Your task to perform on an android device: Go to calendar. Show me events next week Image 0: 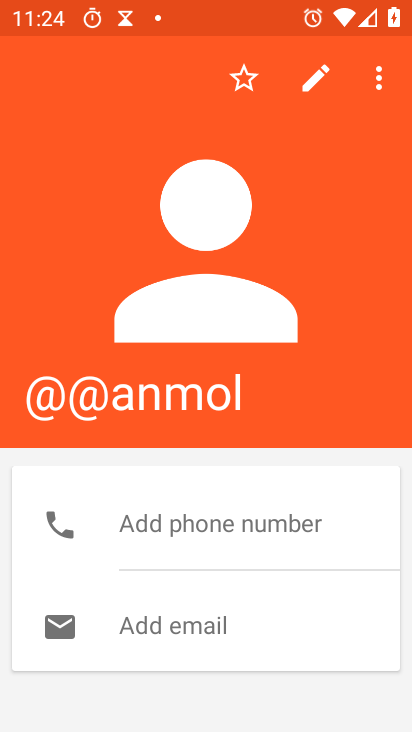
Step 0: press back button
Your task to perform on an android device: Go to calendar. Show me events next week Image 1: 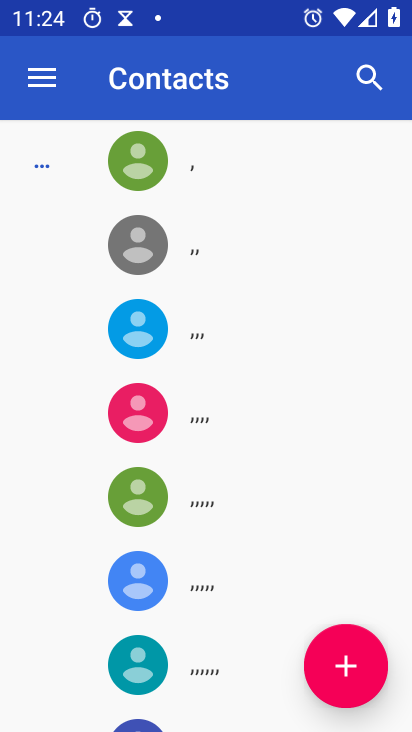
Step 1: press back button
Your task to perform on an android device: Go to calendar. Show me events next week Image 2: 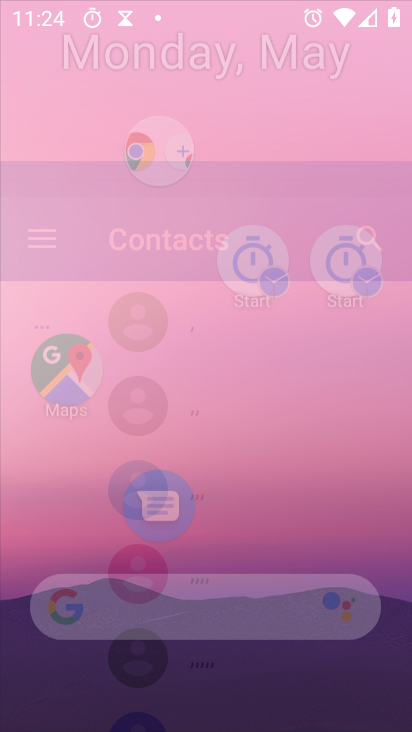
Step 2: press home button
Your task to perform on an android device: Go to calendar. Show me events next week Image 3: 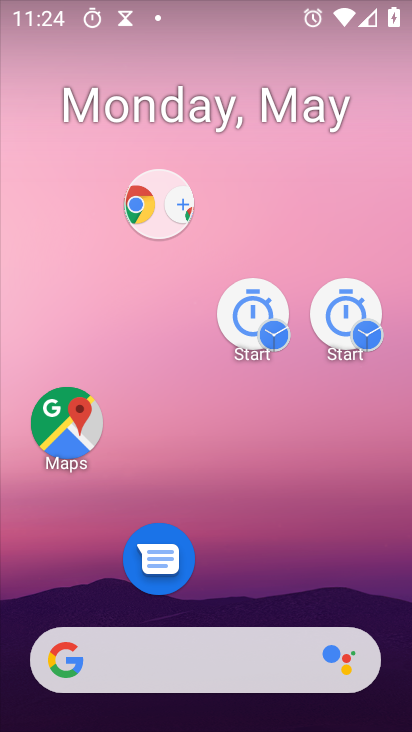
Step 3: drag from (226, 199) to (199, 112)
Your task to perform on an android device: Go to calendar. Show me events next week Image 4: 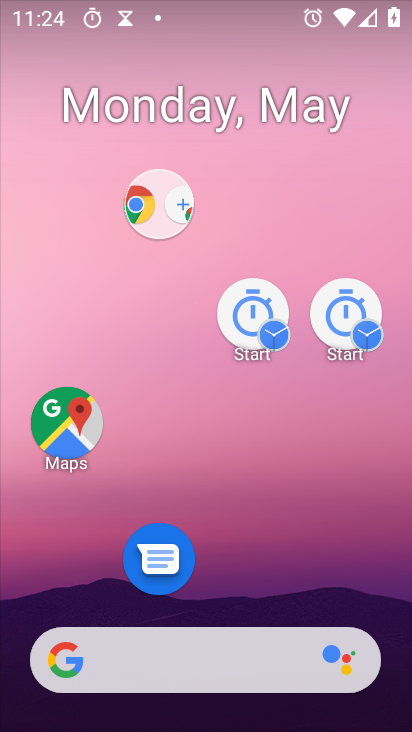
Step 4: drag from (262, 683) to (228, 69)
Your task to perform on an android device: Go to calendar. Show me events next week Image 5: 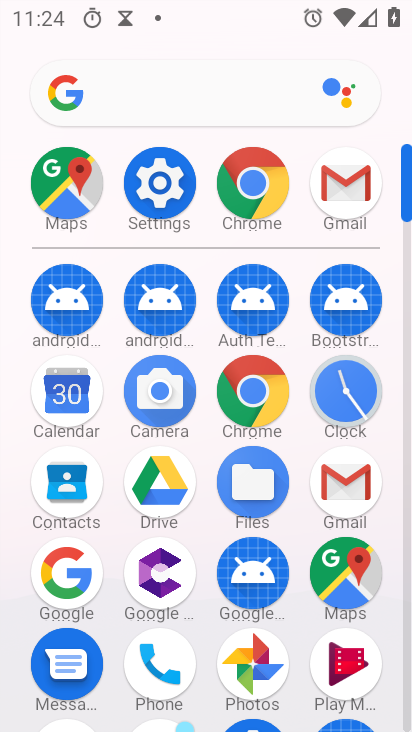
Step 5: drag from (251, 425) to (240, 88)
Your task to perform on an android device: Go to calendar. Show me events next week Image 6: 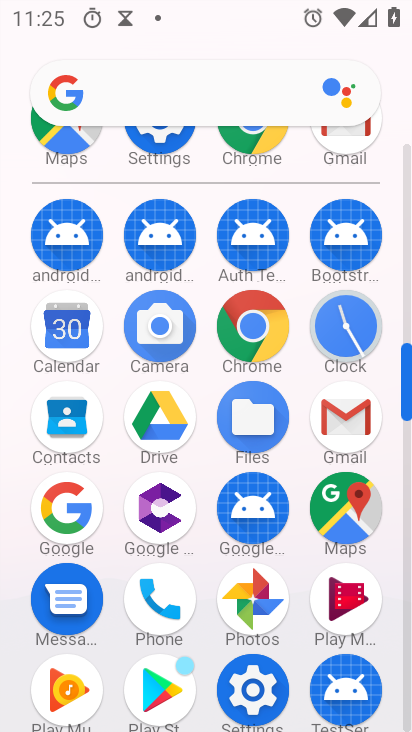
Step 6: click (74, 407)
Your task to perform on an android device: Go to calendar. Show me events next week Image 7: 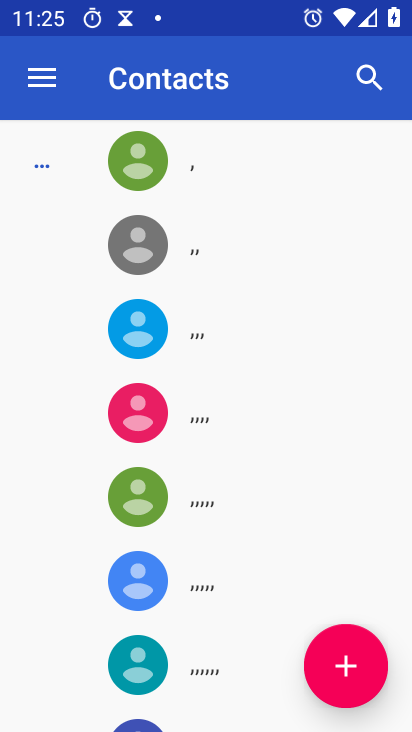
Step 7: press back button
Your task to perform on an android device: Go to calendar. Show me events next week Image 8: 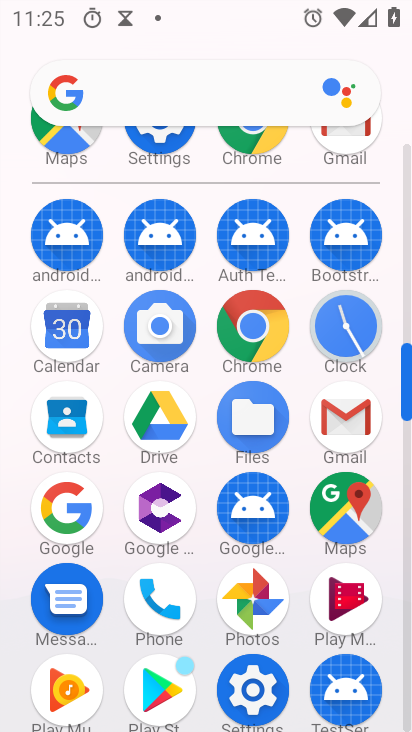
Step 8: click (66, 337)
Your task to perform on an android device: Go to calendar. Show me events next week Image 9: 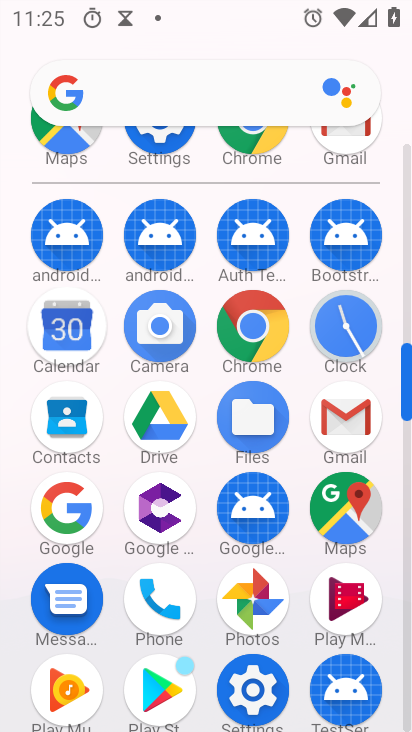
Step 9: click (71, 338)
Your task to perform on an android device: Go to calendar. Show me events next week Image 10: 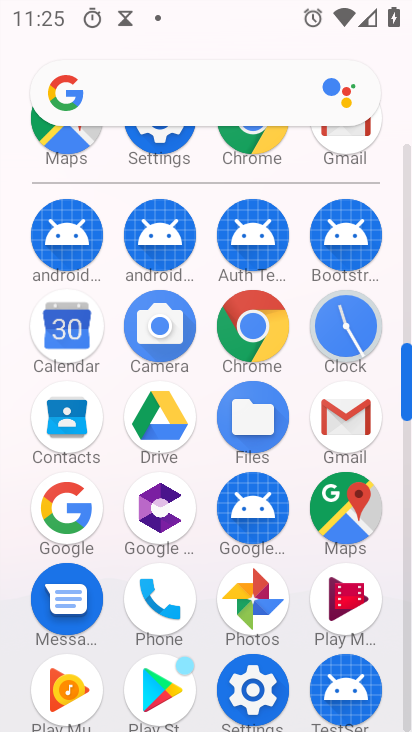
Step 10: click (70, 336)
Your task to perform on an android device: Go to calendar. Show me events next week Image 11: 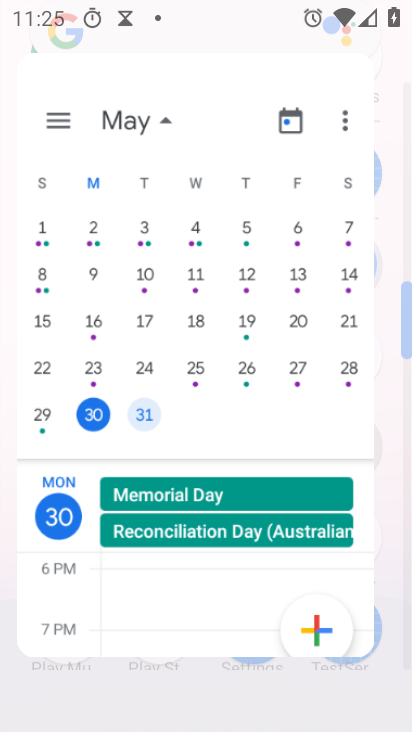
Step 11: click (70, 336)
Your task to perform on an android device: Go to calendar. Show me events next week Image 12: 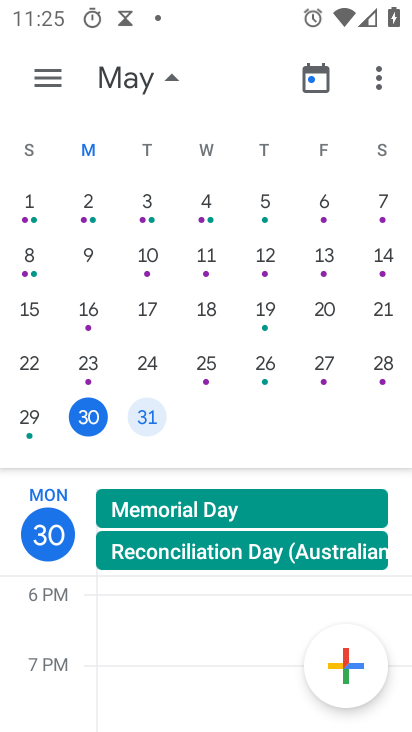
Step 12: drag from (293, 279) to (117, 288)
Your task to perform on an android device: Go to calendar. Show me events next week Image 13: 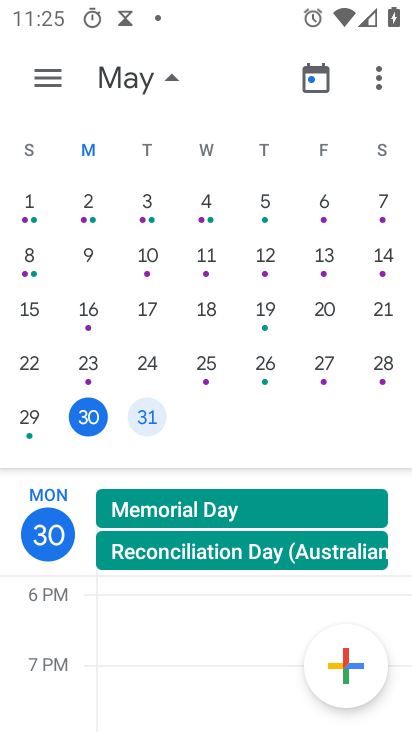
Step 13: drag from (265, 271) to (6, 386)
Your task to perform on an android device: Go to calendar. Show me events next week Image 14: 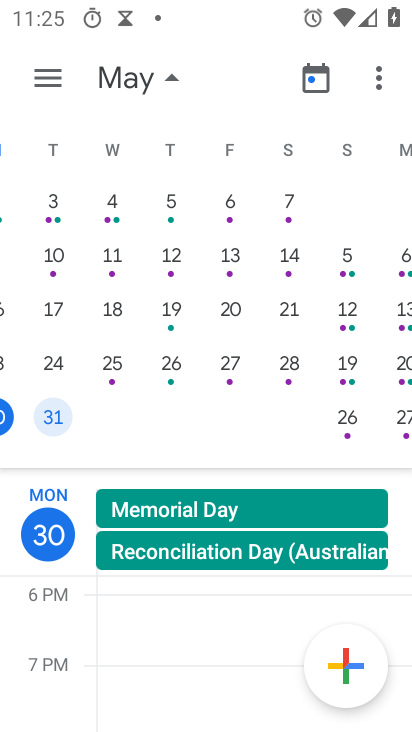
Step 14: drag from (247, 321) to (35, 400)
Your task to perform on an android device: Go to calendar. Show me events next week Image 15: 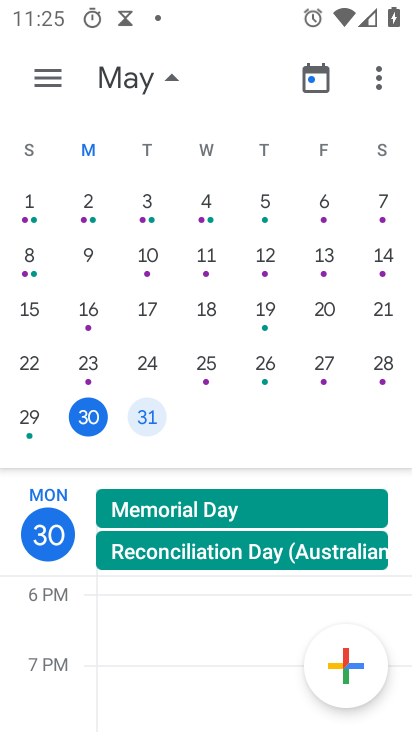
Step 15: click (0, 429)
Your task to perform on an android device: Go to calendar. Show me events next week Image 16: 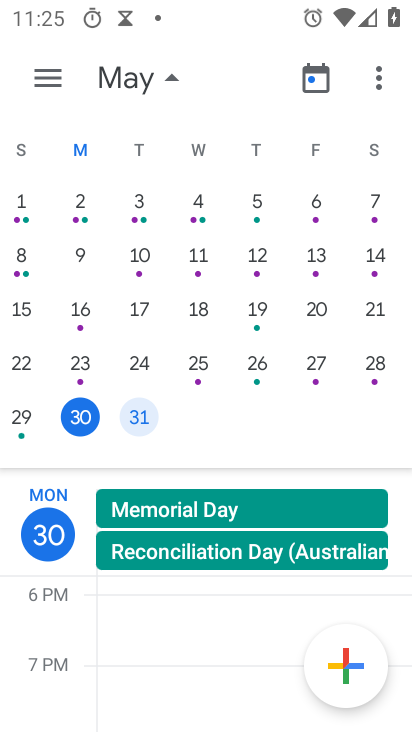
Step 16: drag from (177, 366) to (11, 317)
Your task to perform on an android device: Go to calendar. Show me events next week Image 17: 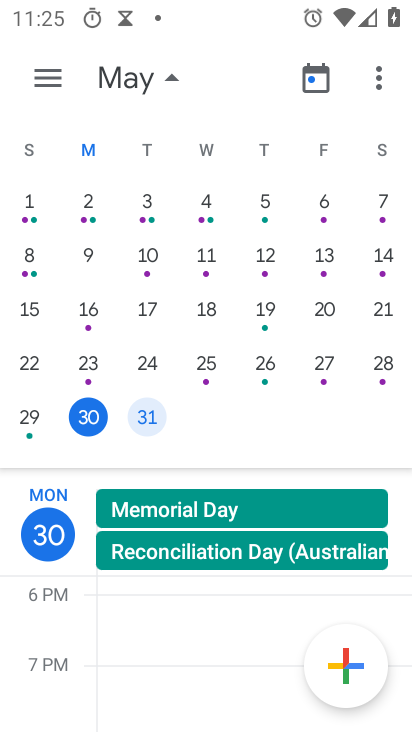
Step 17: drag from (275, 288) to (106, 355)
Your task to perform on an android device: Go to calendar. Show me events next week Image 18: 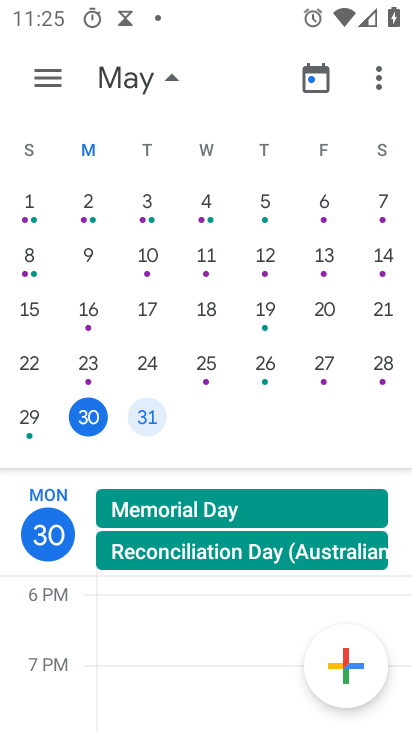
Step 18: drag from (237, 317) to (76, 300)
Your task to perform on an android device: Go to calendar. Show me events next week Image 19: 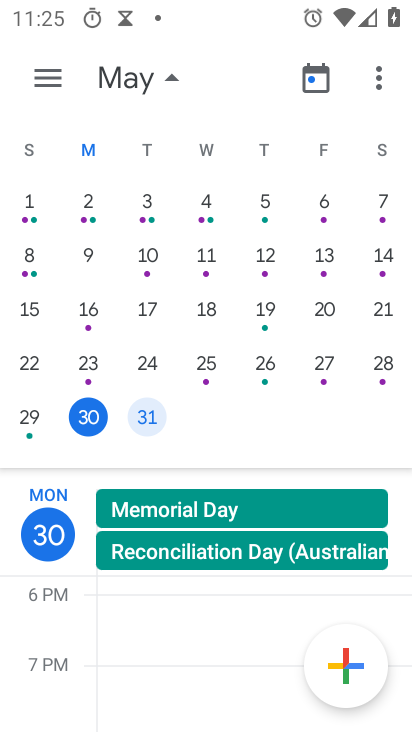
Step 19: drag from (276, 322) to (43, 284)
Your task to perform on an android device: Go to calendar. Show me events next week Image 20: 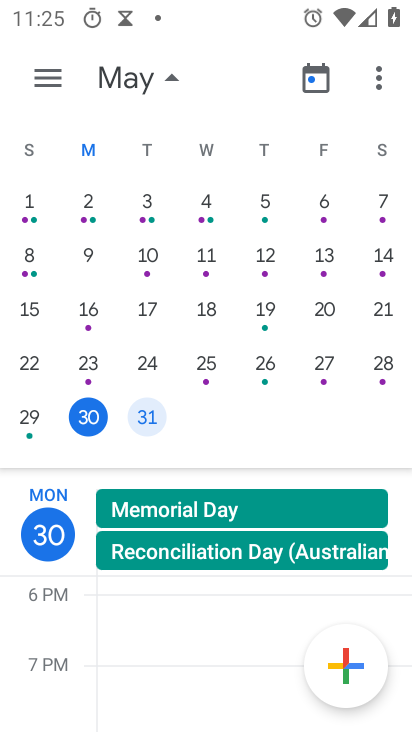
Step 20: drag from (301, 319) to (36, 362)
Your task to perform on an android device: Go to calendar. Show me events next week Image 21: 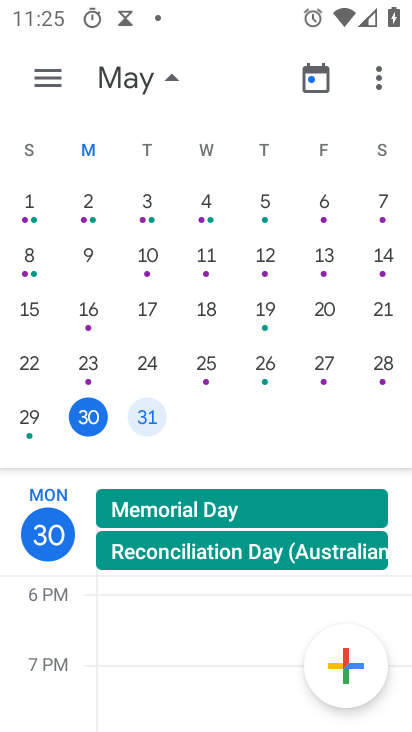
Step 21: drag from (234, 299) to (102, 382)
Your task to perform on an android device: Go to calendar. Show me events next week Image 22: 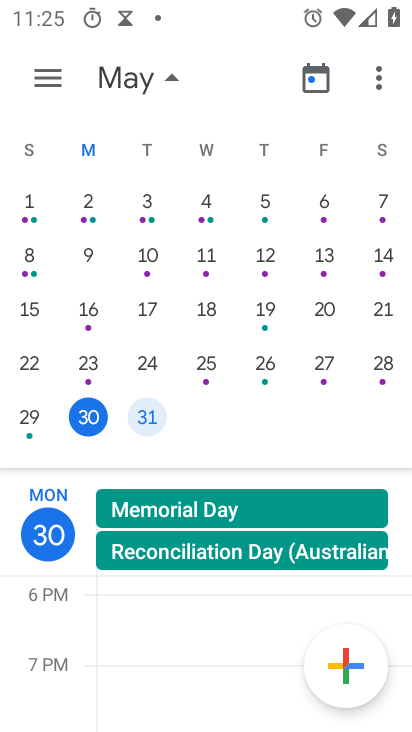
Step 22: drag from (269, 303) to (26, 344)
Your task to perform on an android device: Go to calendar. Show me events next week Image 23: 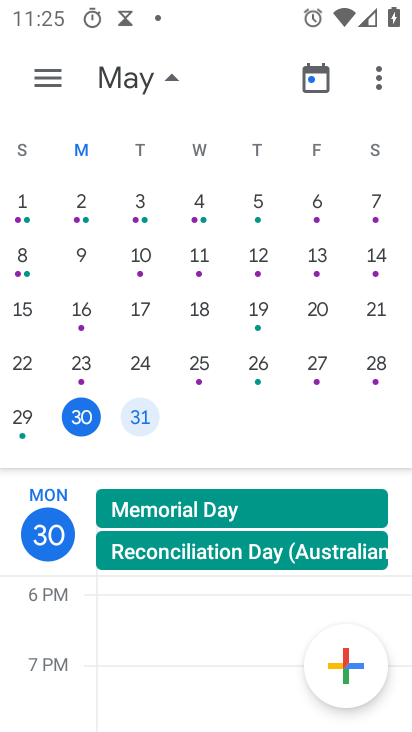
Step 23: drag from (191, 264) to (101, 330)
Your task to perform on an android device: Go to calendar. Show me events next week Image 24: 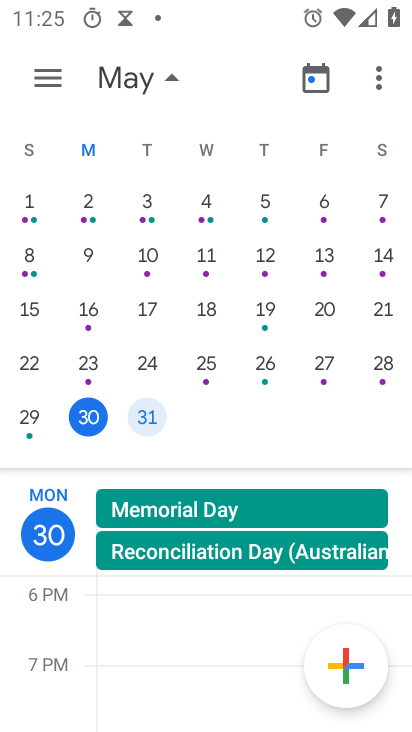
Step 24: drag from (257, 293) to (52, 352)
Your task to perform on an android device: Go to calendar. Show me events next week Image 25: 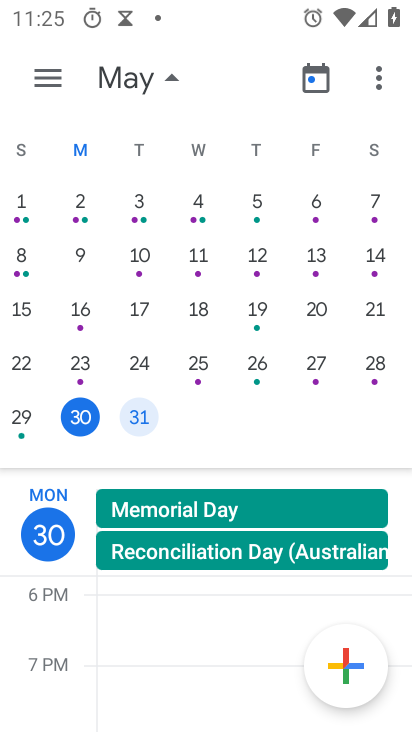
Step 25: drag from (292, 310) to (13, 270)
Your task to perform on an android device: Go to calendar. Show me events next week Image 26: 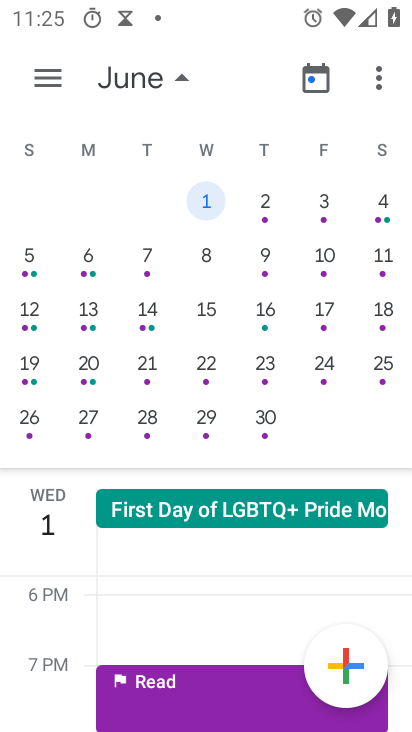
Step 26: drag from (215, 329) to (15, 373)
Your task to perform on an android device: Go to calendar. Show me events next week Image 27: 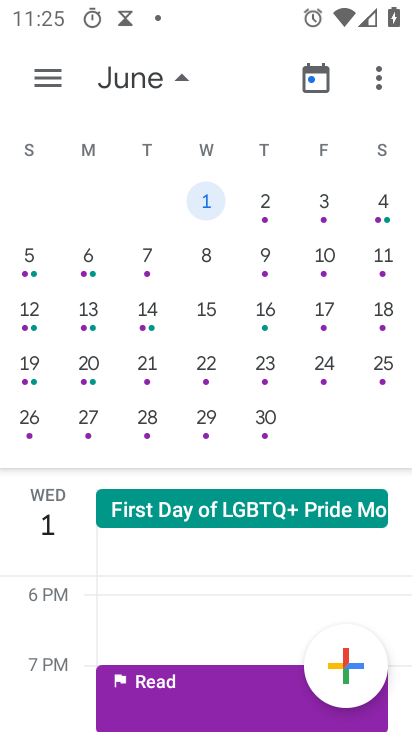
Step 27: click (211, 250)
Your task to perform on an android device: Go to calendar. Show me events next week Image 28: 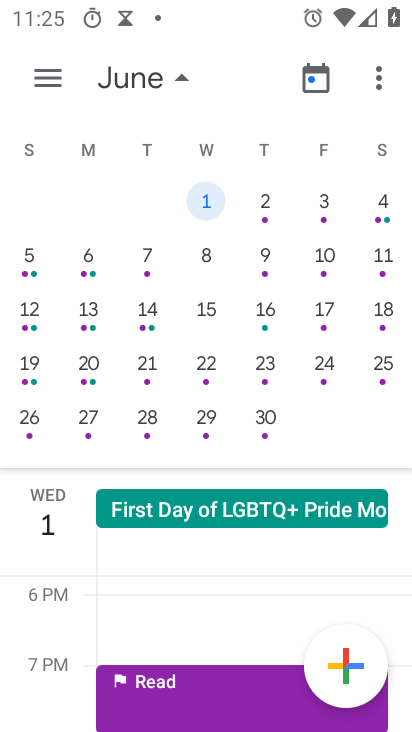
Step 28: click (211, 252)
Your task to perform on an android device: Go to calendar. Show me events next week Image 29: 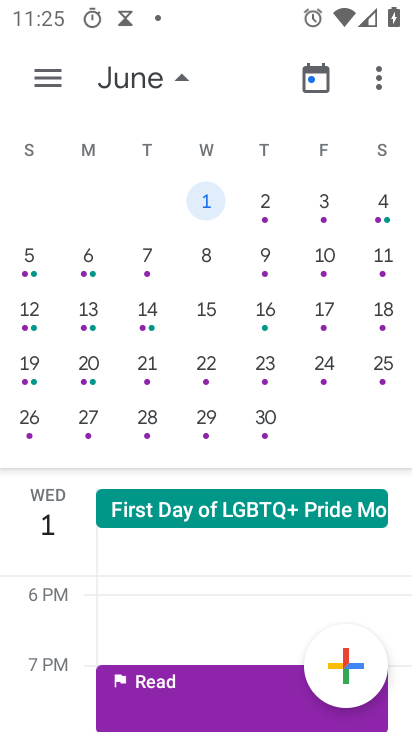
Step 29: click (212, 253)
Your task to perform on an android device: Go to calendar. Show me events next week Image 30: 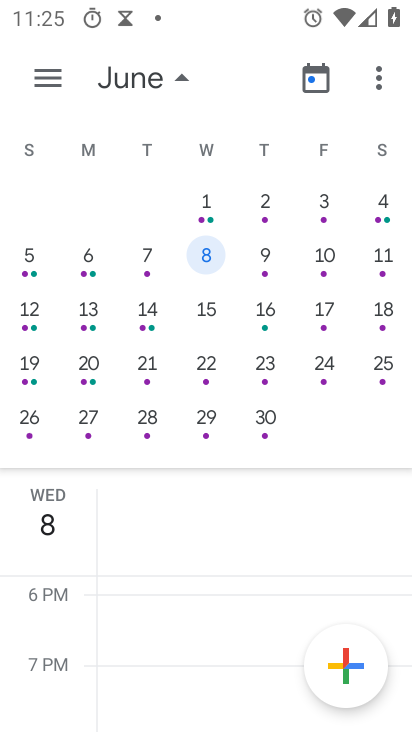
Step 30: click (213, 253)
Your task to perform on an android device: Go to calendar. Show me events next week Image 31: 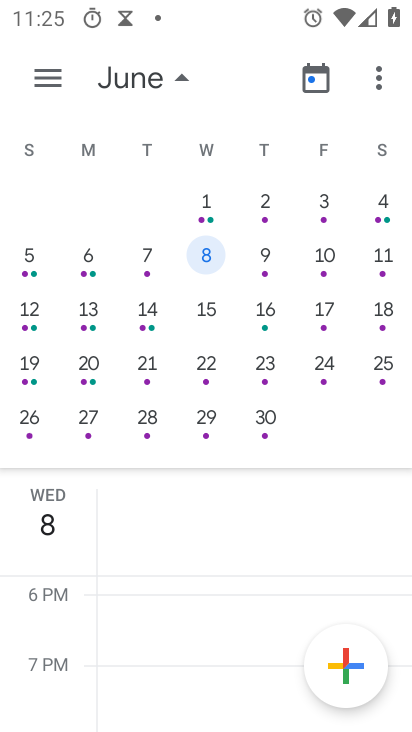
Step 31: click (210, 253)
Your task to perform on an android device: Go to calendar. Show me events next week Image 32: 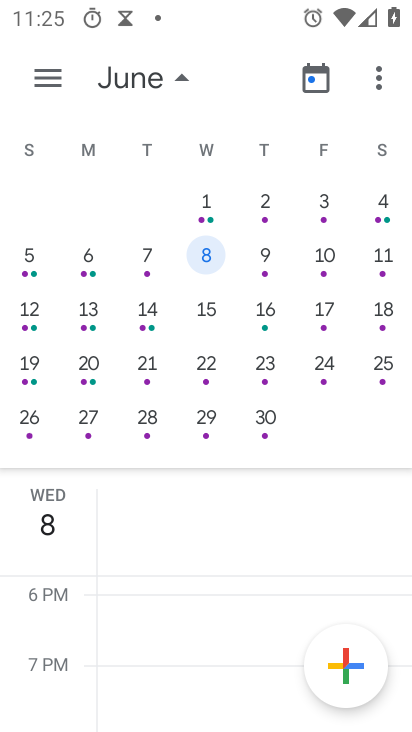
Step 32: task complete